Your task to perform on an android device: What's the price of the EGO 14-in 56-Volt Brushless Cordless Chainsaw? Image 0: 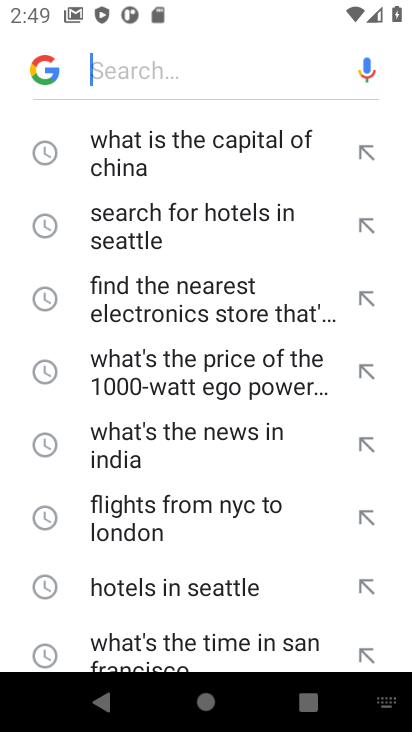
Step 0: press home button
Your task to perform on an android device: What's the price of the EGO 14-in 56-Volt Brushless Cordless Chainsaw? Image 1: 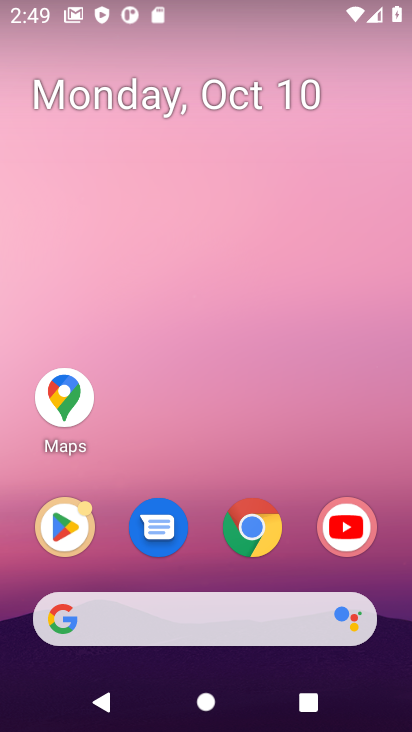
Step 1: click (278, 608)
Your task to perform on an android device: What's the price of the EGO 14-in 56-Volt Brushless Cordless Chainsaw? Image 2: 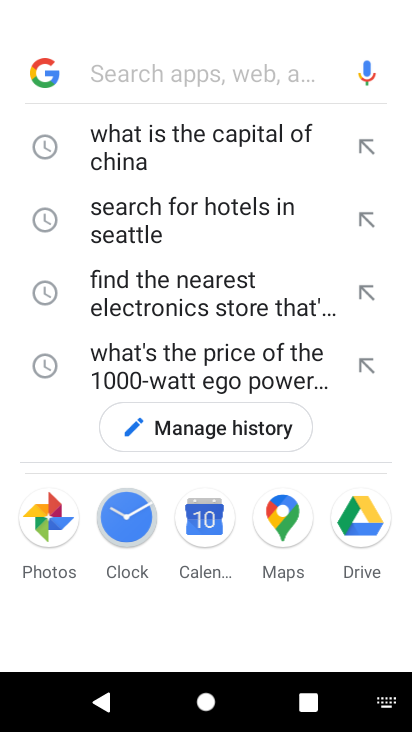
Step 2: type "What's the price of the EGO 14-in 56-Volt Brushless Cordless Chainsaw"
Your task to perform on an android device: What's the price of the EGO 14-in 56-Volt Brushless Cordless Chainsaw? Image 3: 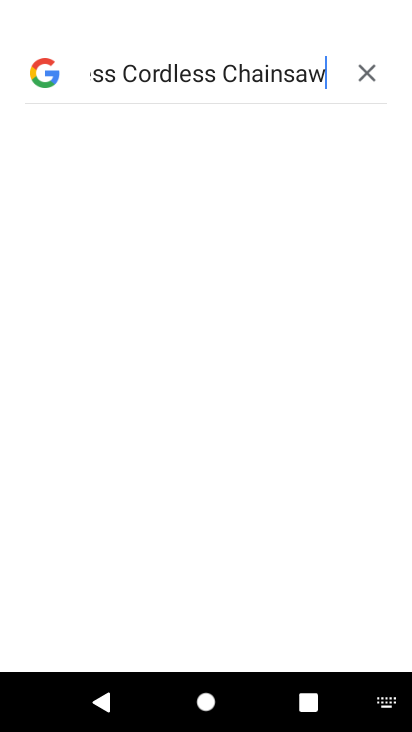
Step 3: press enter
Your task to perform on an android device: What's the price of the EGO 14-in 56-Volt Brushless Cordless Chainsaw? Image 4: 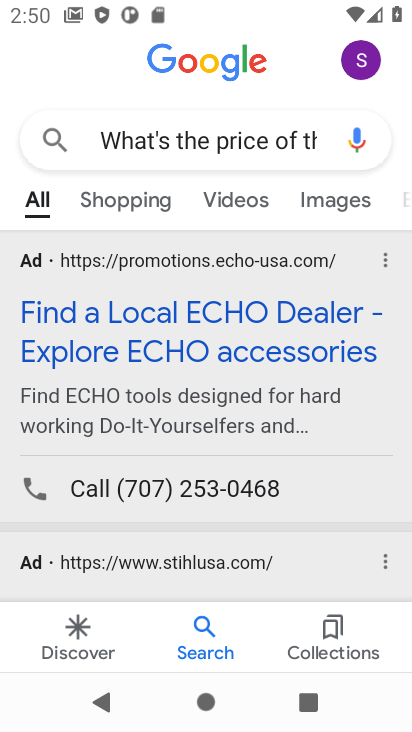
Step 4: click (205, 343)
Your task to perform on an android device: What's the price of the EGO 14-in 56-Volt Brushless Cordless Chainsaw? Image 5: 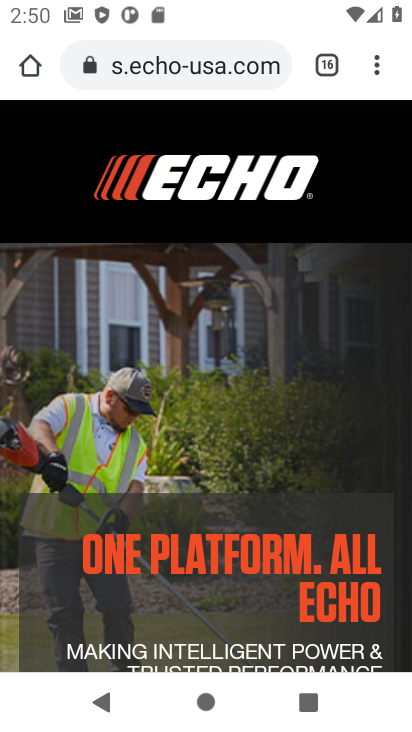
Step 5: task complete